Your task to perform on an android device: Go to privacy settings Image 0: 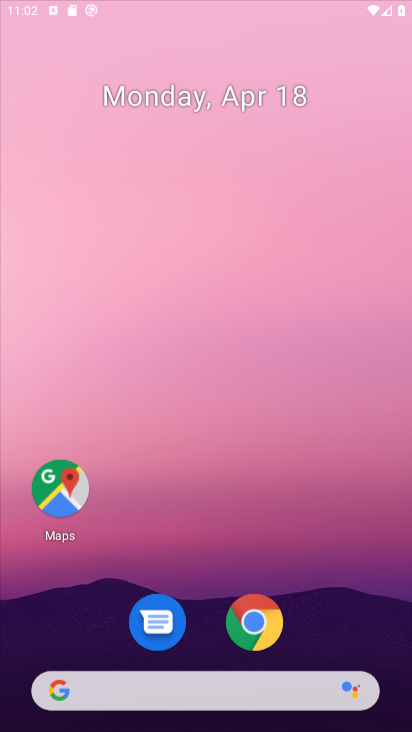
Step 0: press home button
Your task to perform on an android device: Go to privacy settings Image 1: 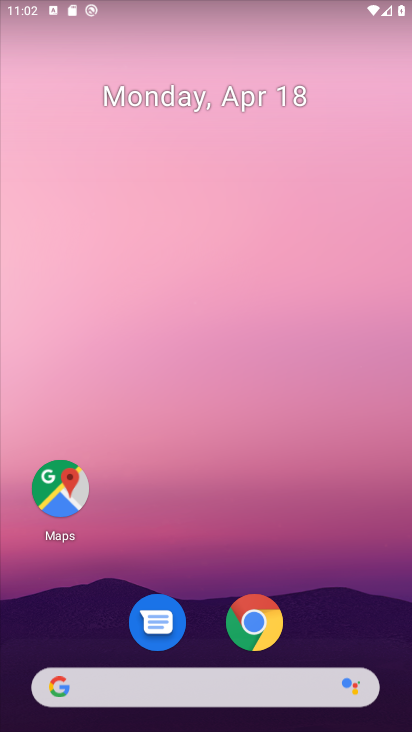
Step 1: click (265, 613)
Your task to perform on an android device: Go to privacy settings Image 2: 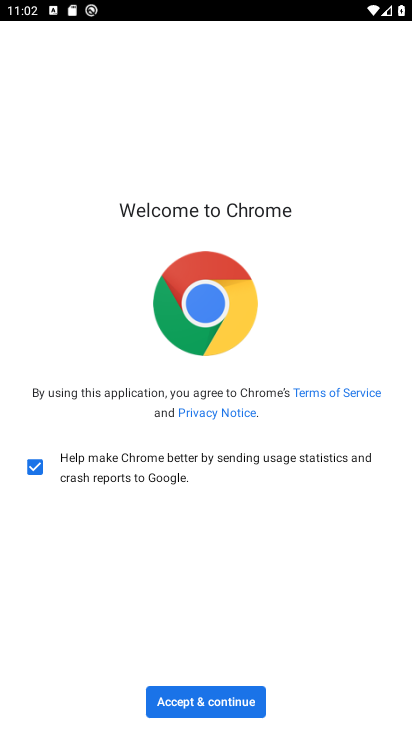
Step 2: click (191, 699)
Your task to perform on an android device: Go to privacy settings Image 3: 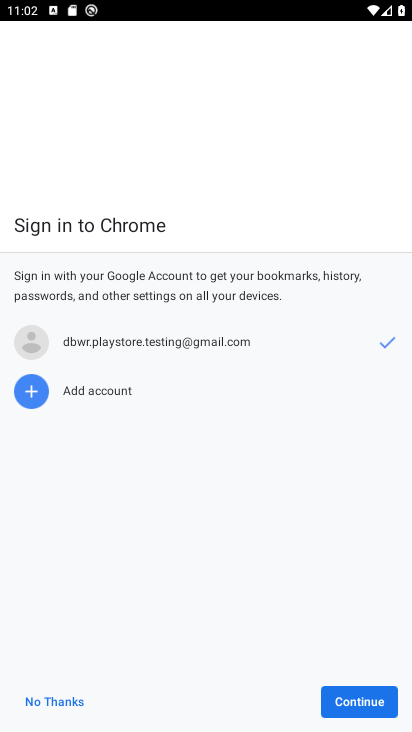
Step 3: click (370, 715)
Your task to perform on an android device: Go to privacy settings Image 4: 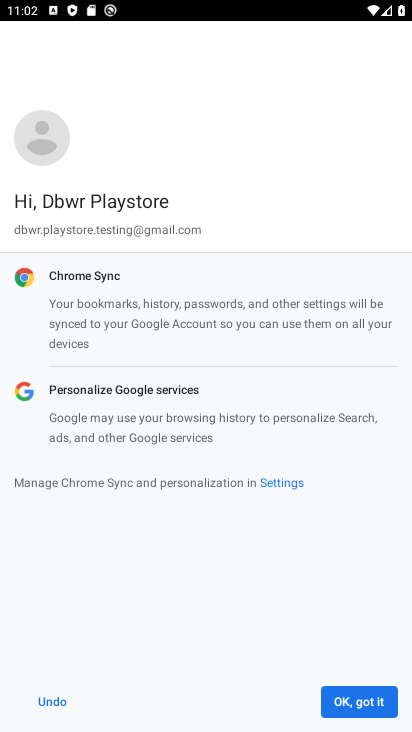
Step 4: click (352, 708)
Your task to perform on an android device: Go to privacy settings Image 5: 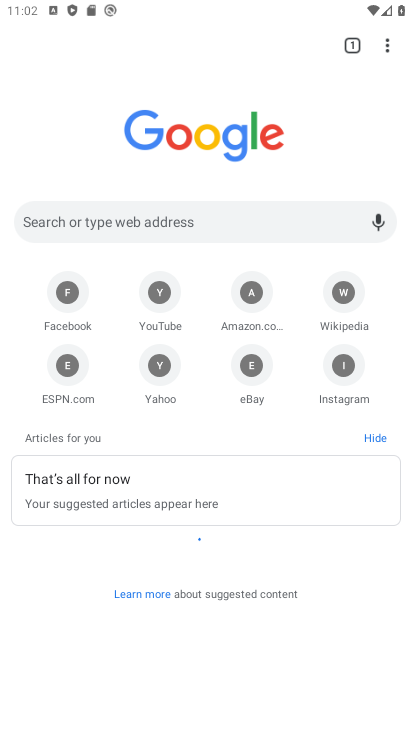
Step 5: click (387, 40)
Your task to perform on an android device: Go to privacy settings Image 6: 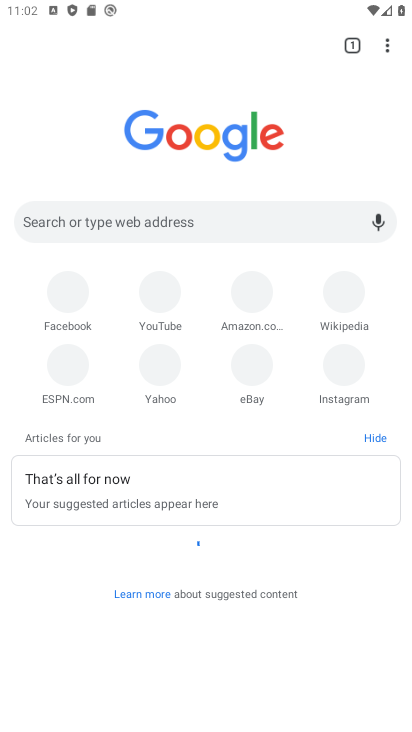
Step 6: click (394, 36)
Your task to perform on an android device: Go to privacy settings Image 7: 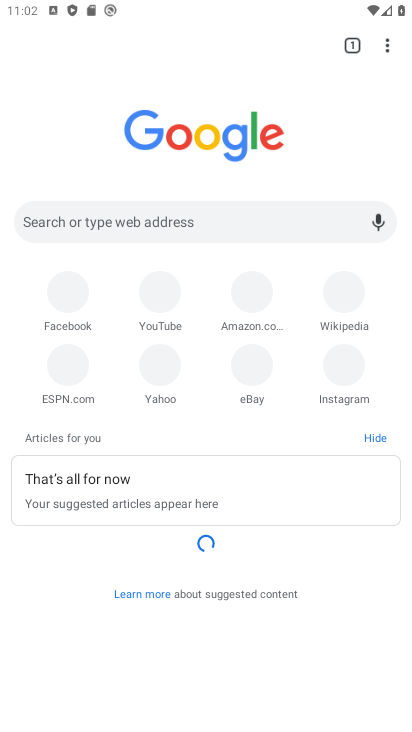
Step 7: click (385, 50)
Your task to perform on an android device: Go to privacy settings Image 8: 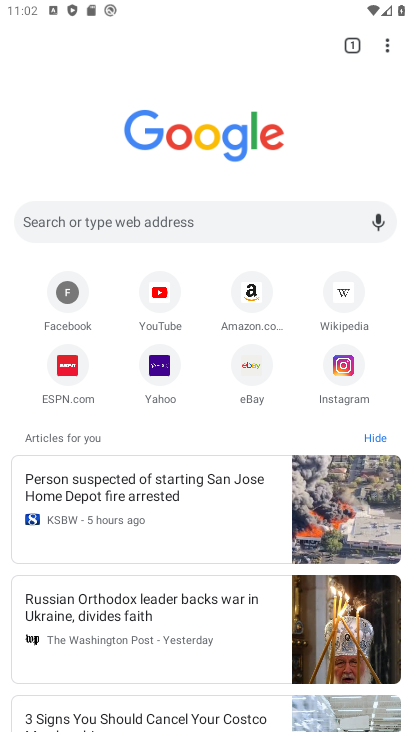
Step 8: click (384, 36)
Your task to perform on an android device: Go to privacy settings Image 9: 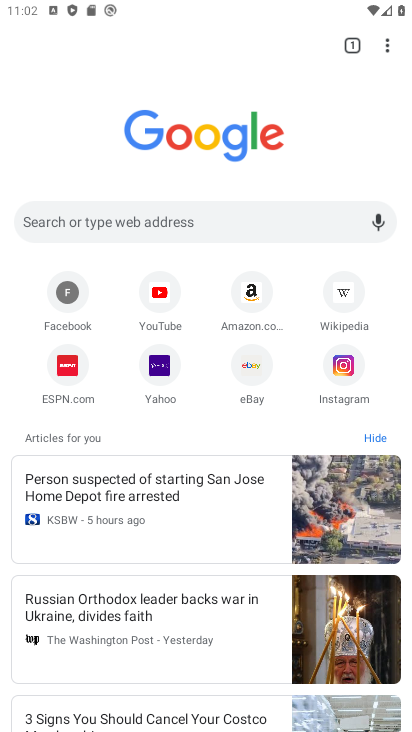
Step 9: click (393, 46)
Your task to perform on an android device: Go to privacy settings Image 10: 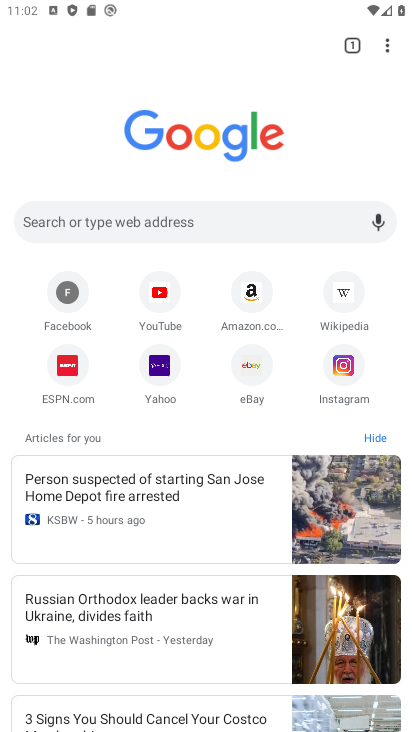
Step 10: drag from (384, 47) to (238, 378)
Your task to perform on an android device: Go to privacy settings Image 11: 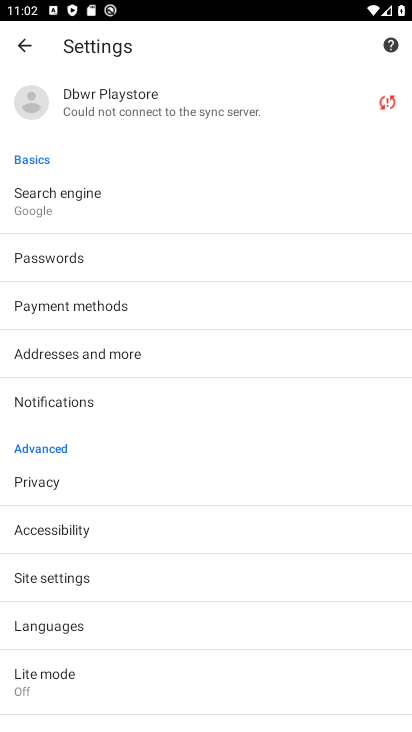
Step 11: click (73, 480)
Your task to perform on an android device: Go to privacy settings Image 12: 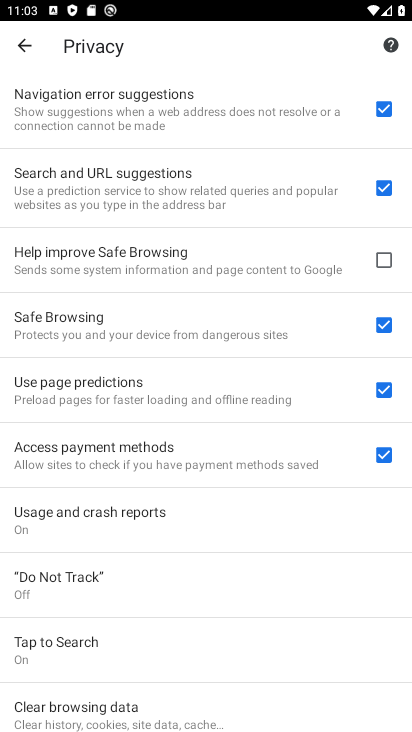
Step 12: task complete